Your task to perform on an android device: open a new tab in the chrome app Image 0: 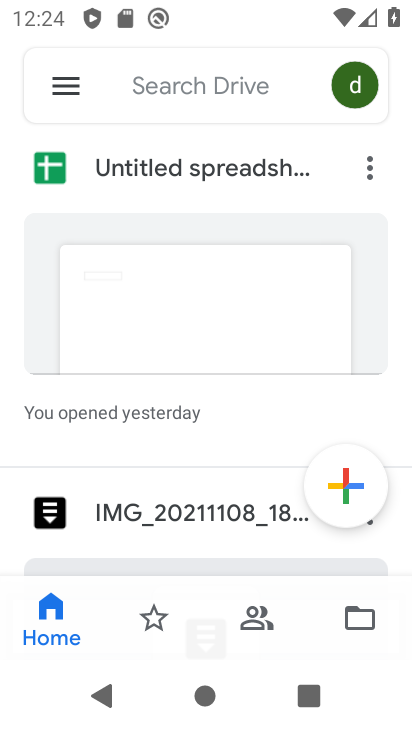
Step 0: press home button
Your task to perform on an android device: open a new tab in the chrome app Image 1: 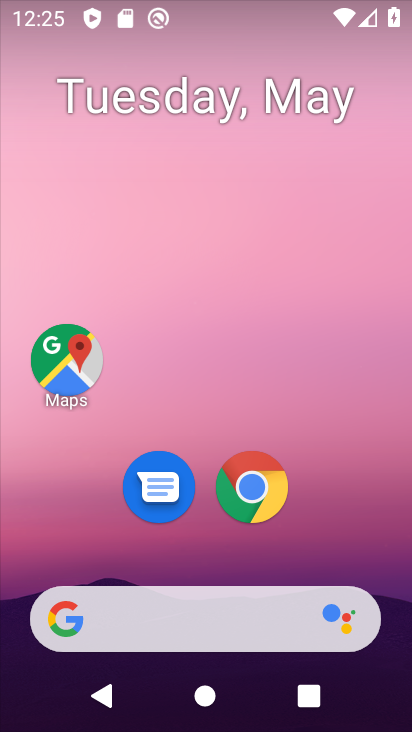
Step 1: click (249, 484)
Your task to perform on an android device: open a new tab in the chrome app Image 2: 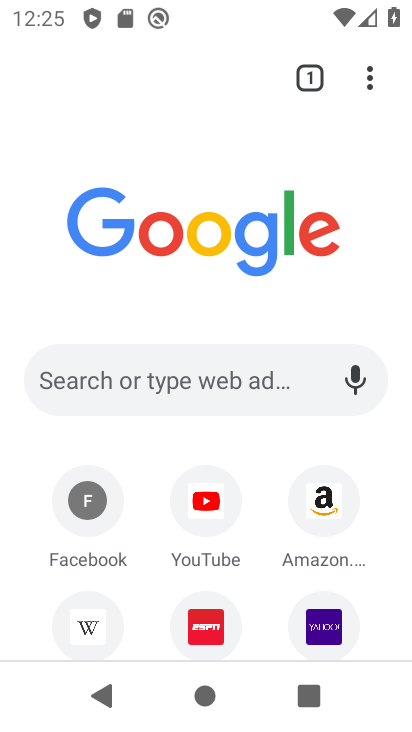
Step 2: click (302, 80)
Your task to perform on an android device: open a new tab in the chrome app Image 3: 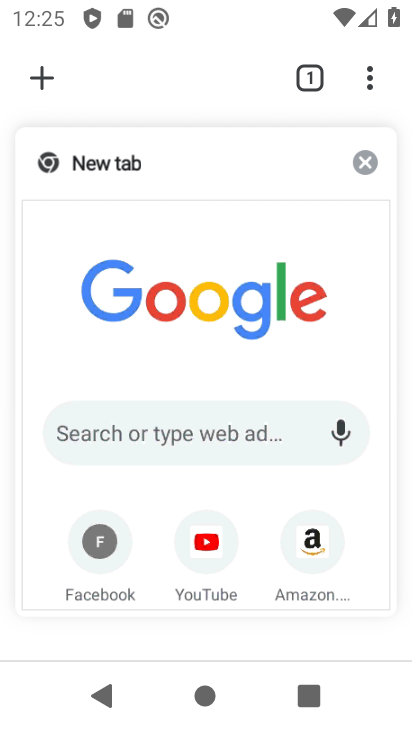
Step 3: click (41, 72)
Your task to perform on an android device: open a new tab in the chrome app Image 4: 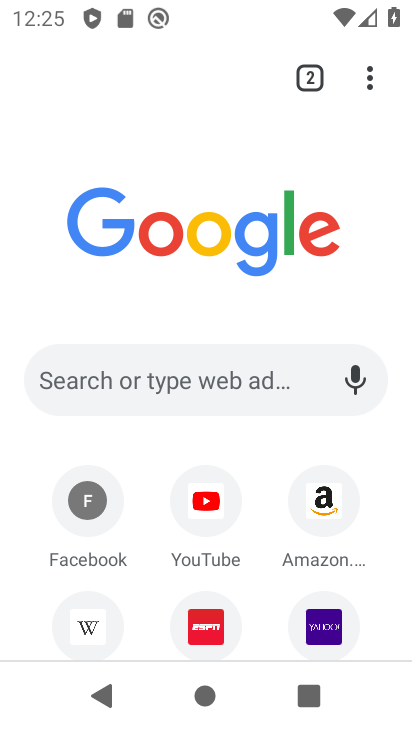
Step 4: task complete